Your task to perform on an android device: turn off location Image 0: 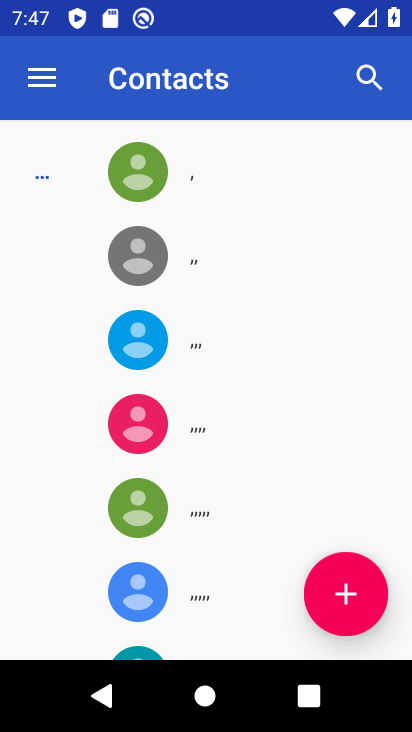
Step 0: press home button
Your task to perform on an android device: turn off location Image 1: 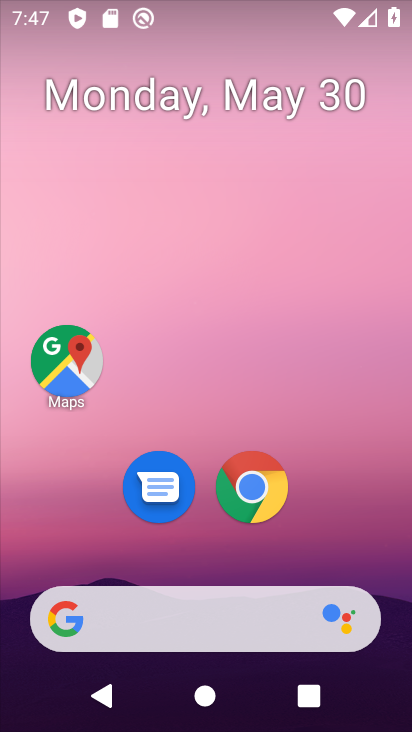
Step 1: drag from (278, 519) to (310, 157)
Your task to perform on an android device: turn off location Image 2: 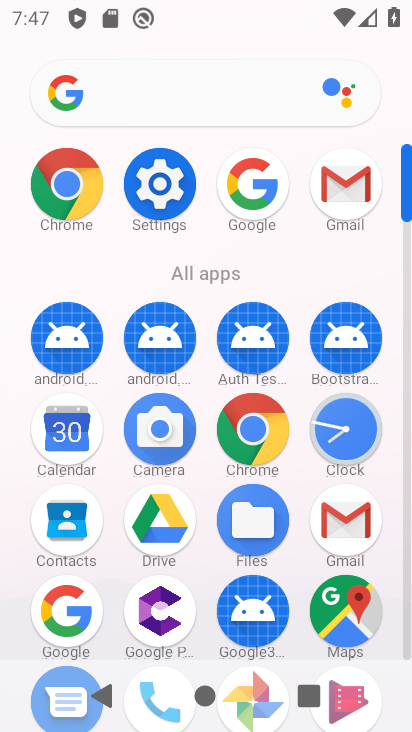
Step 2: click (169, 167)
Your task to perform on an android device: turn off location Image 3: 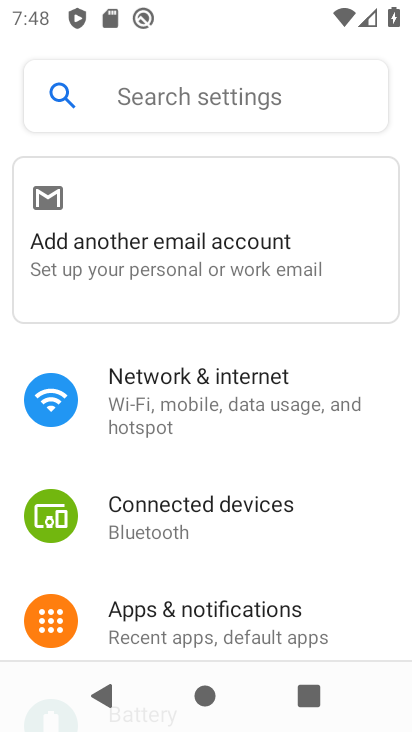
Step 3: drag from (243, 553) to (302, 158)
Your task to perform on an android device: turn off location Image 4: 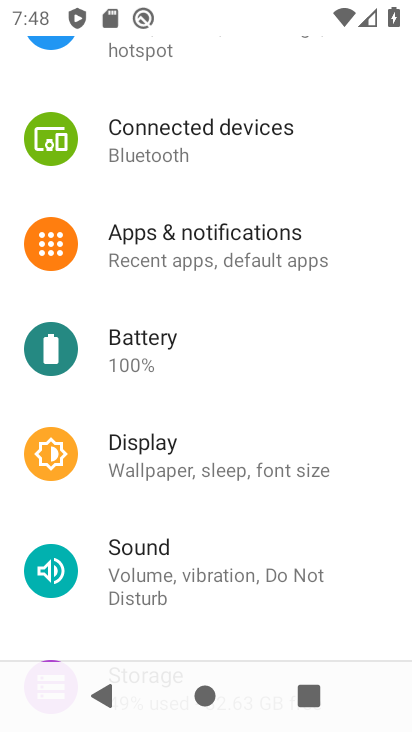
Step 4: drag from (191, 527) to (242, 197)
Your task to perform on an android device: turn off location Image 5: 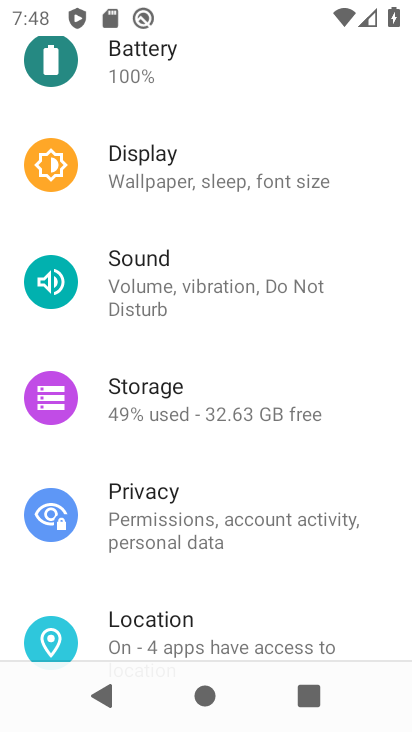
Step 5: drag from (209, 642) to (251, 368)
Your task to perform on an android device: turn off location Image 6: 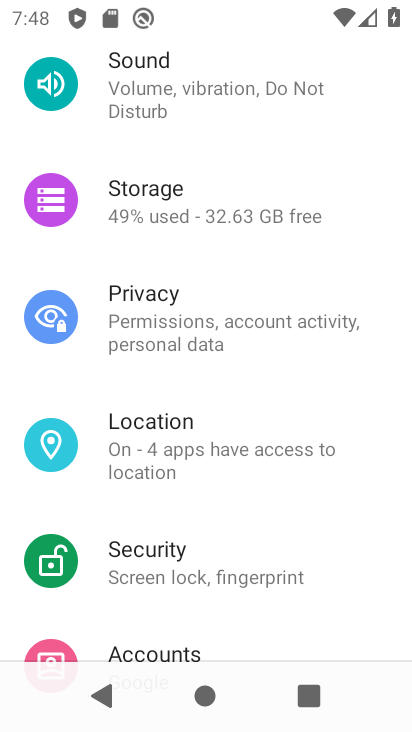
Step 6: click (173, 454)
Your task to perform on an android device: turn off location Image 7: 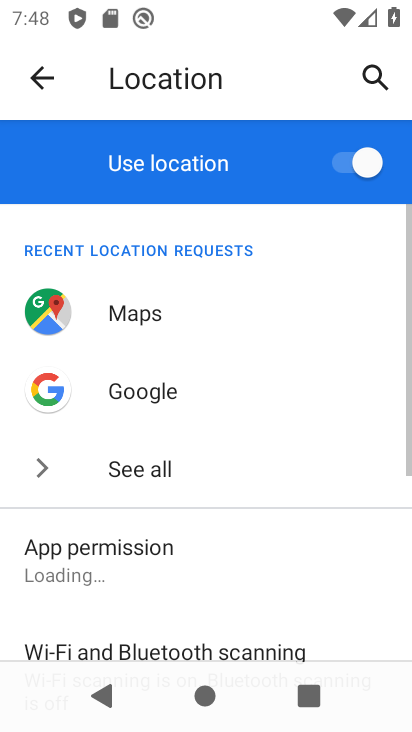
Step 7: click (334, 151)
Your task to perform on an android device: turn off location Image 8: 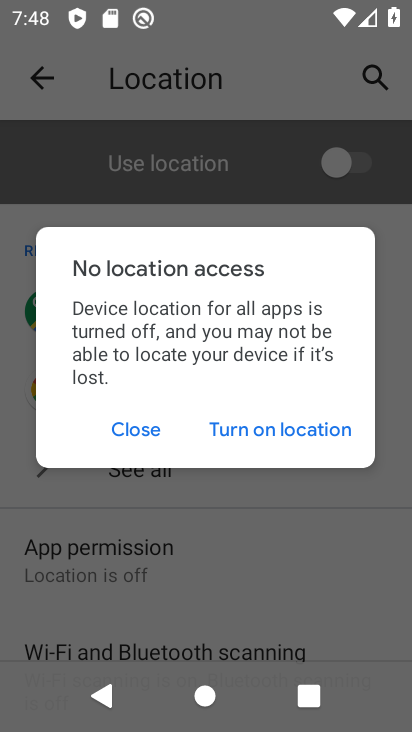
Step 8: click (150, 420)
Your task to perform on an android device: turn off location Image 9: 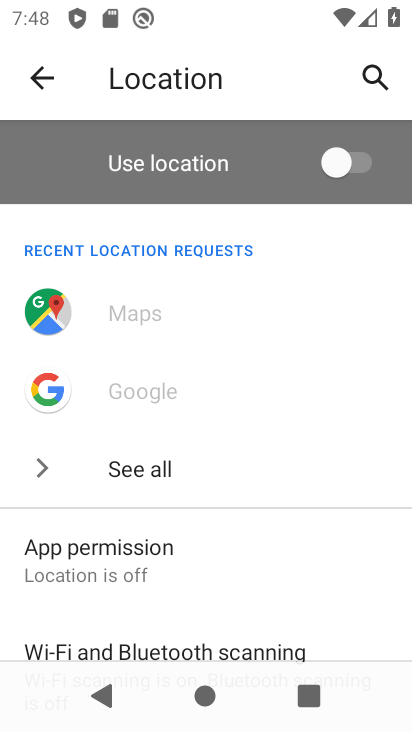
Step 9: task complete